Your task to perform on an android device: Go to Yahoo.com Image 0: 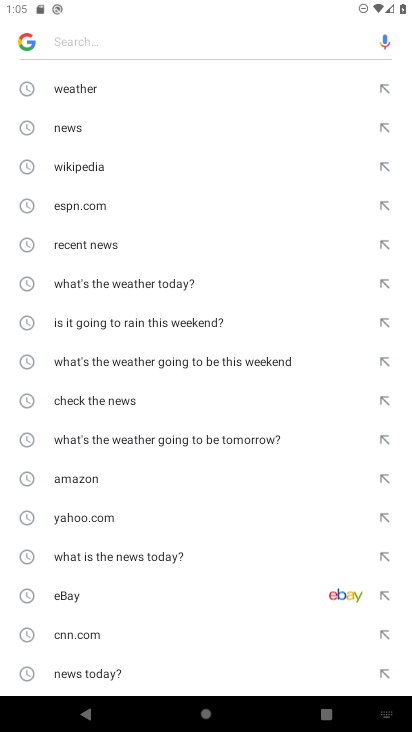
Step 0: press home button
Your task to perform on an android device: Go to Yahoo.com Image 1: 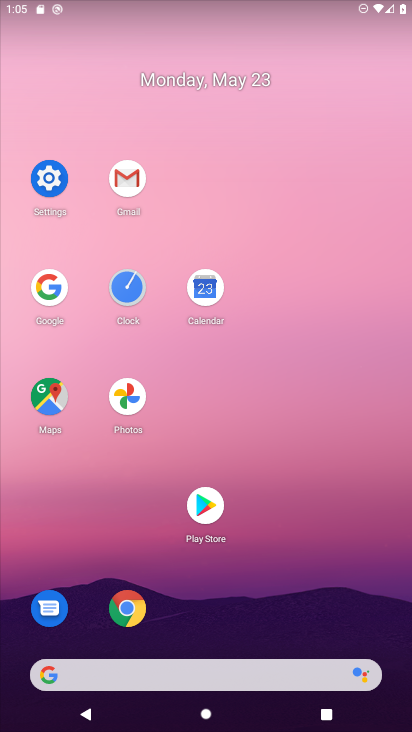
Step 1: click (134, 603)
Your task to perform on an android device: Go to Yahoo.com Image 2: 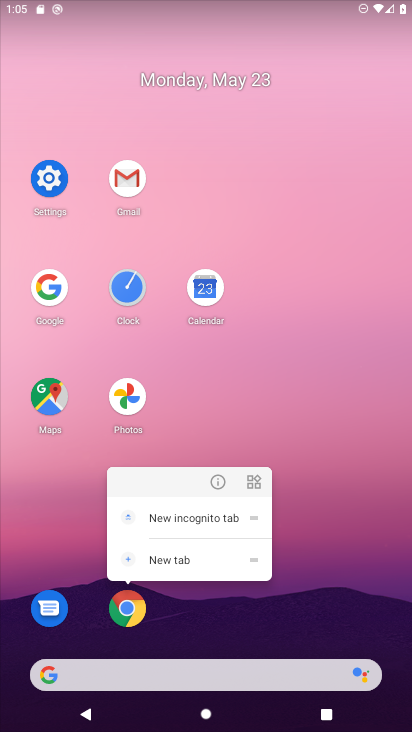
Step 2: click (226, 603)
Your task to perform on an android device: Go to Yahoo.com Image 3: 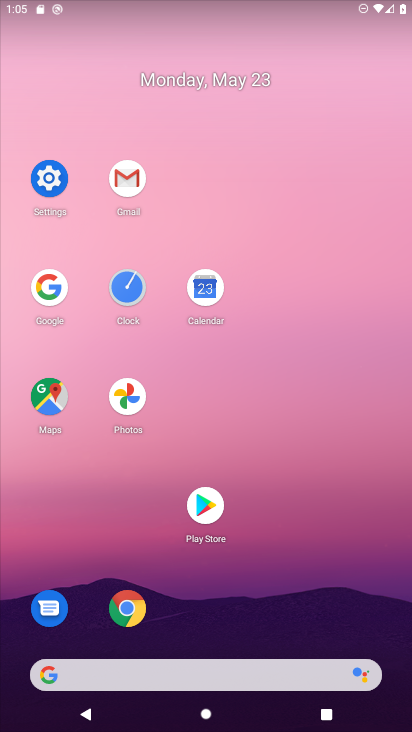
Step 3: click (143, 607)
Your task to perform on an android device: Go to Yahoo.com Image 4: 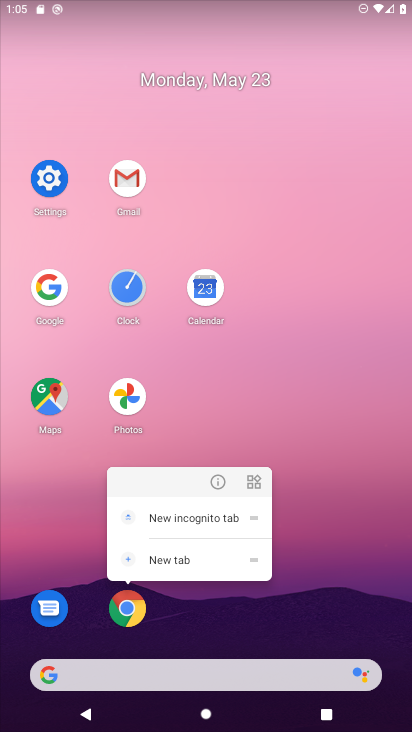
Step 4: click (134, 604)
Your task to perform on an android device: Go to Yahoo.com Image 5: 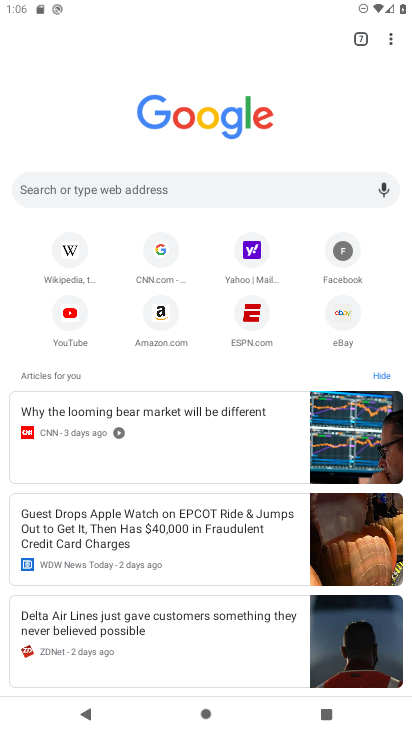
Step 5: click (244, 238)
Your task to perform on an android device: Go to Yahoo.com Image 6: 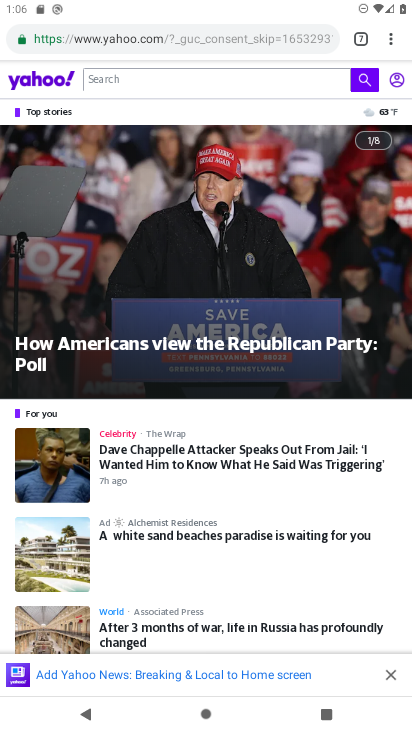
Step 6: task complete